Your task to perform on an android device: check battery use Image 0: 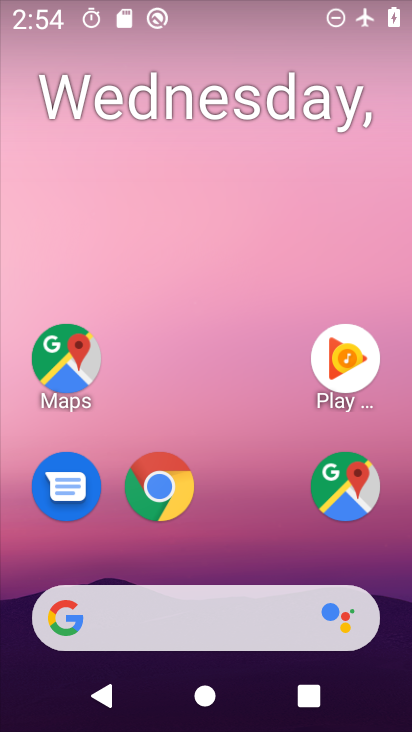
Step 0: press home button
Your task to perform on an android device: check battery use Image 1: 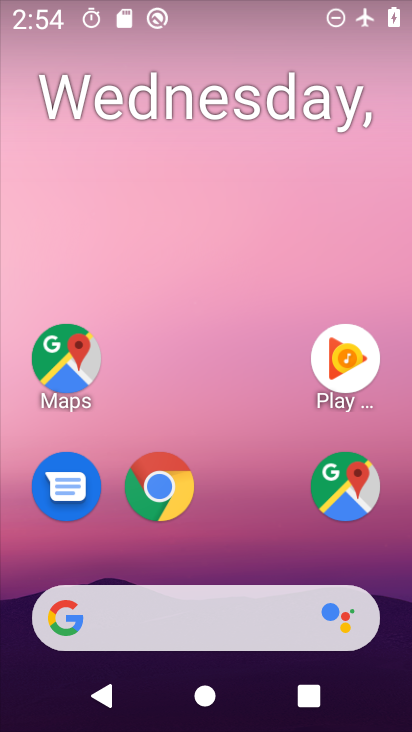
Step 1: drag from (259, 554) to (255, 84)
Your task to perform on an android device: check battery use Image 2: 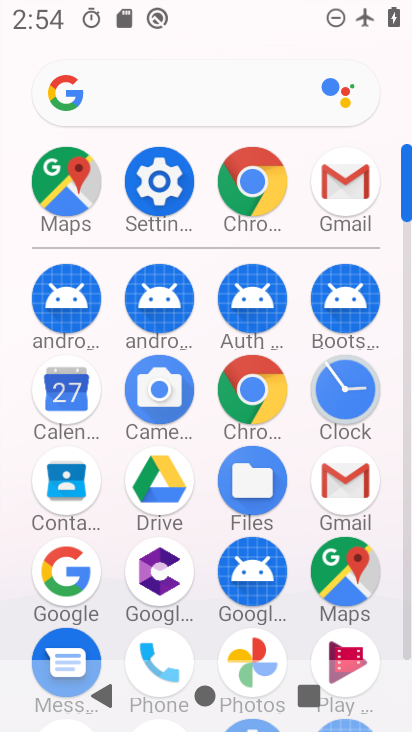
Step 2: click (160, 186)
Your task to perform on an android device: check battery use Image 3: 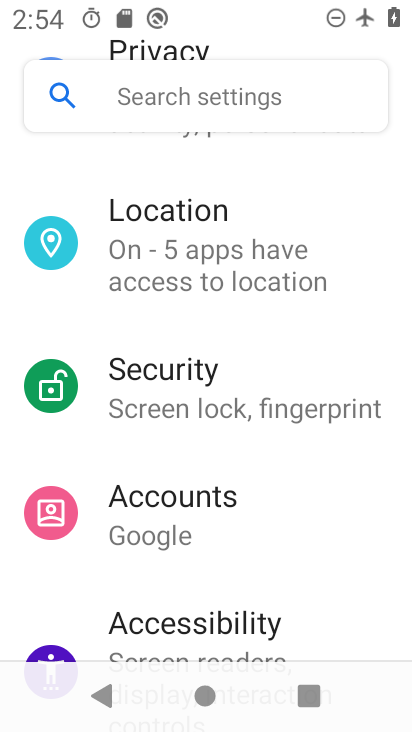
Step 3: drag from (360, 208) to (355, 260)
Your task to perform on an android device: check battery use Image 4: 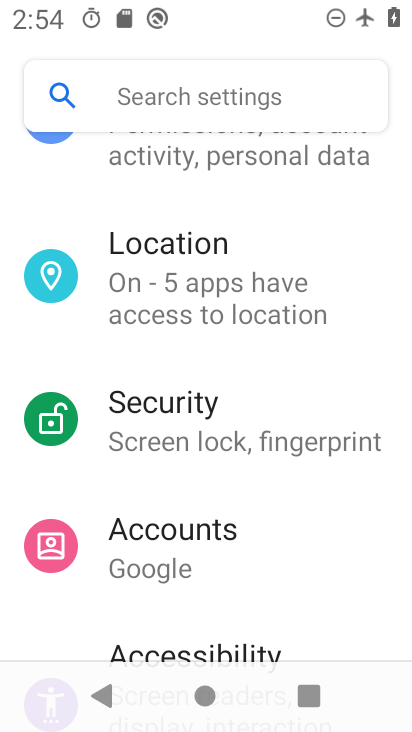
Step 4: drag from (364, 214) to (365, 339)
Your task to perform on an android device: check battery use Image 5: 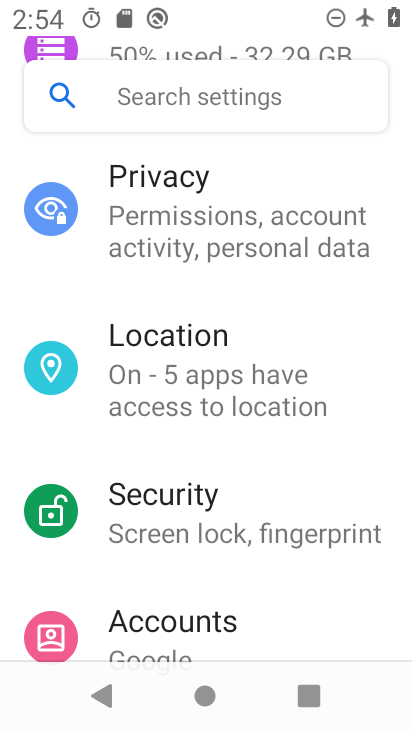
Step 5: drag from (390, 185) to (389, 292)
Your task to perform on an android device: check battery use Image 6: 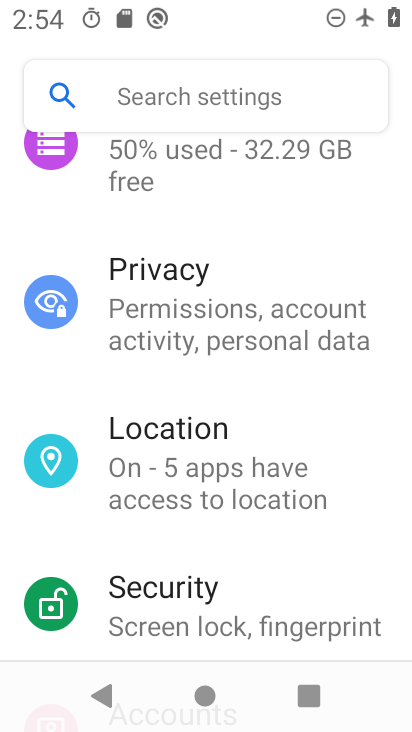
Step 6: drag from (377, 201) to (376, 283)
Your task to perform on an android device: check battery use Image 7: 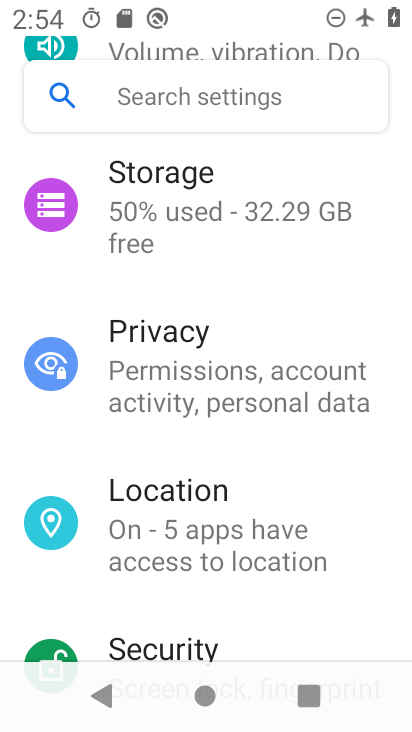
Step 7: drag from (373, 175) to (380, 269)
Your task to perform on an android device: check battery use Image 8: 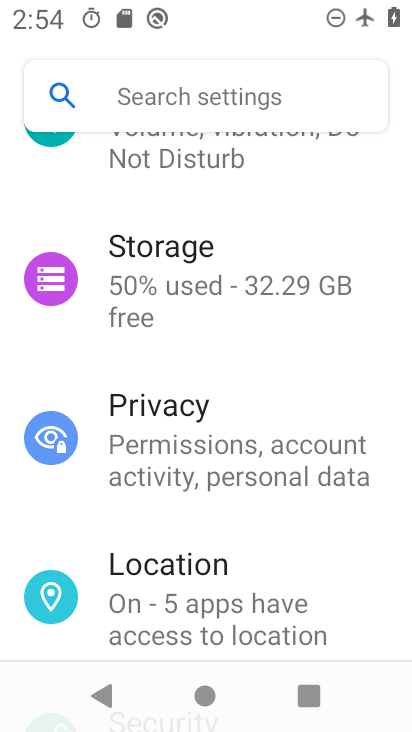
Step 8: drag from (374, 233) to (379, 295)
Your task to perform on an android device: check battery use Image 9: 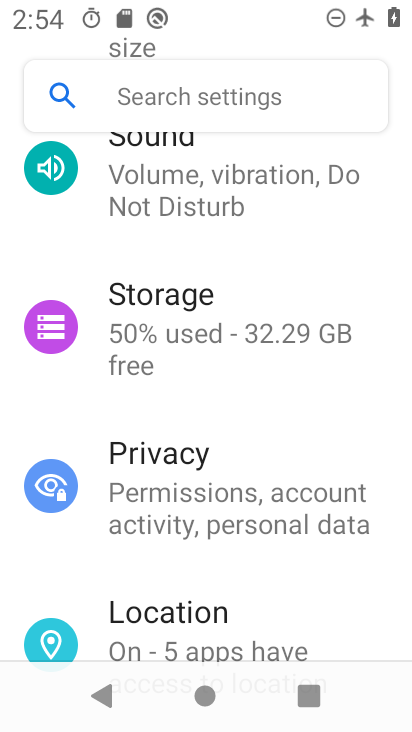
Step 9: drag from (383, 181) to (388, 276)
Your task to perform on an android device: check battery use Image 10: 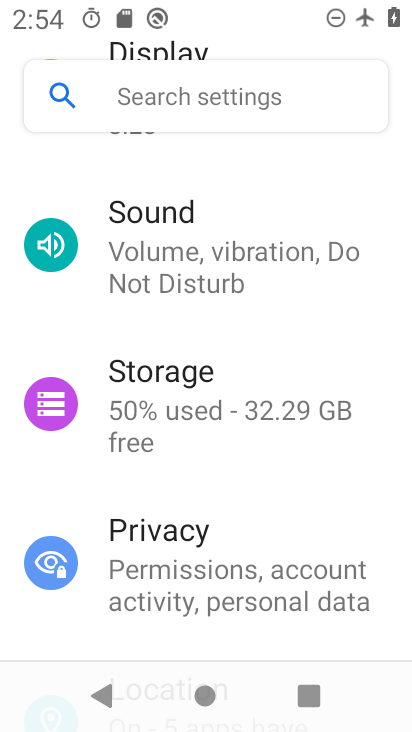
Step 10: drag from (370, 176) to (372, 304)
Your task to perform on an android device: check battery use Image 11: 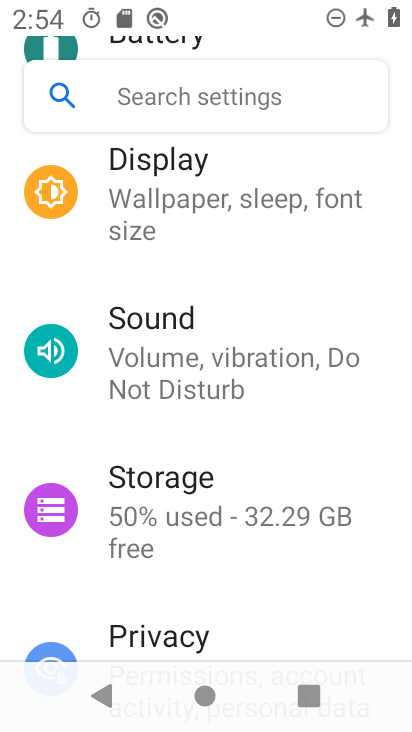
Step 11: drag from (371, 166) to (368, 279)
Your task to perform on an android device: check battery use Image 12: 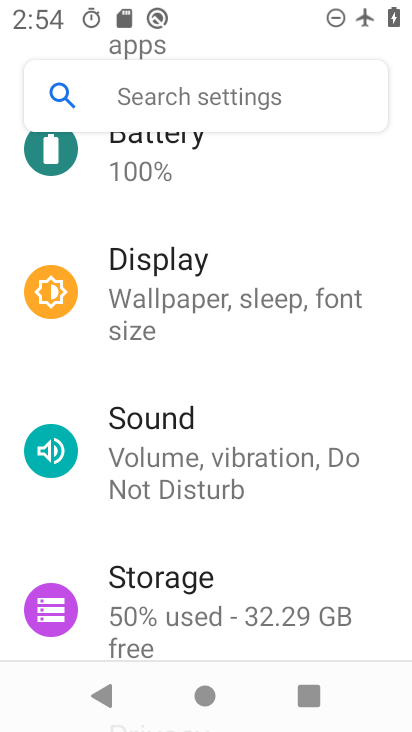
Step 12: drag from (359, 211) to (364, 335)
Your task to perform on an android device: check battery use Image 13: 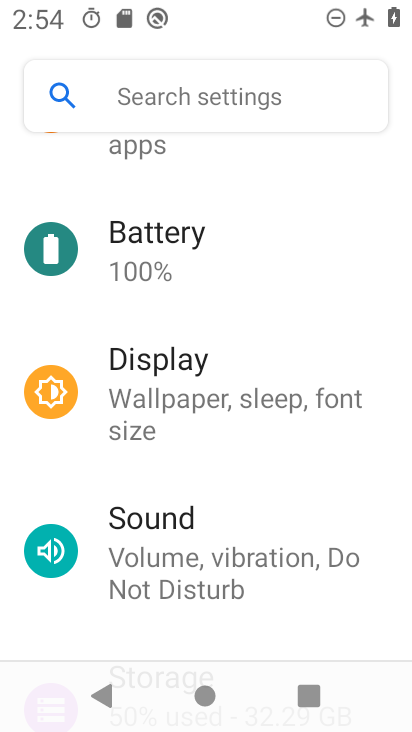
Step 13: click (297, 267)
Your task to perform on an android device: check battery use Image 14: 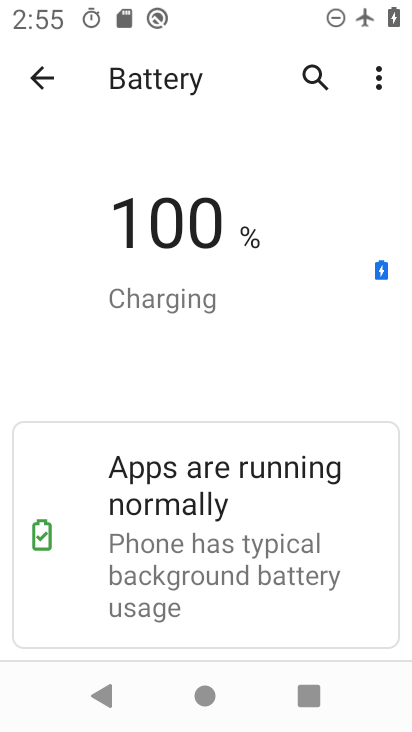
Step 14: click (374, 82)
Your task to perform on an android device: check battery use Image 15: 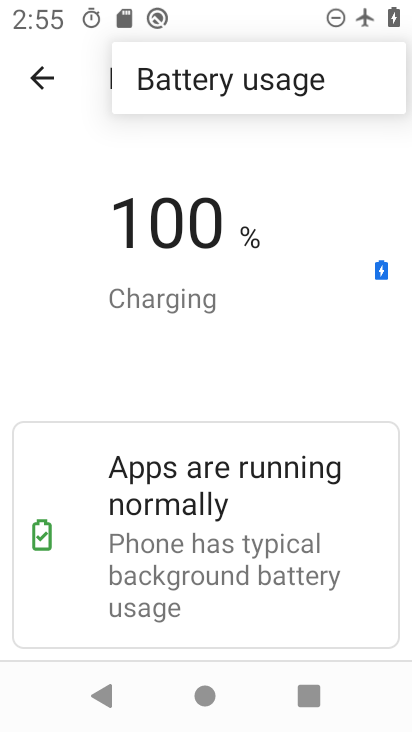
Step 15: click (313, 81)
Your task to perform on an android device: check battery use Image 16: 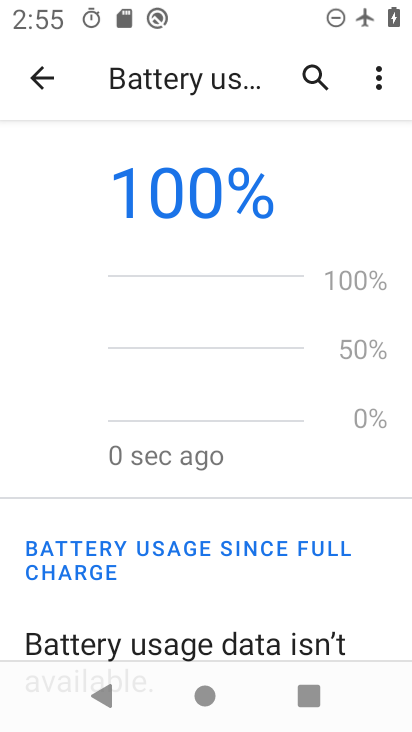
Step 16: task complete